Your task to perform on an android device: Open wifi settings Image 0: 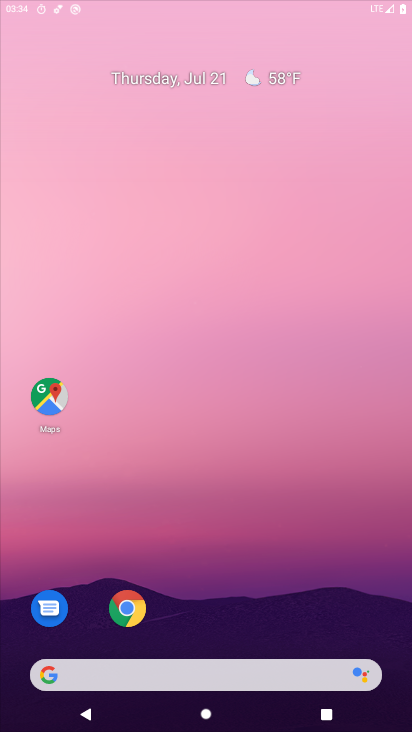
Step 0: press home button
Your task to perform on an android device: Open wifi settings Image 1: 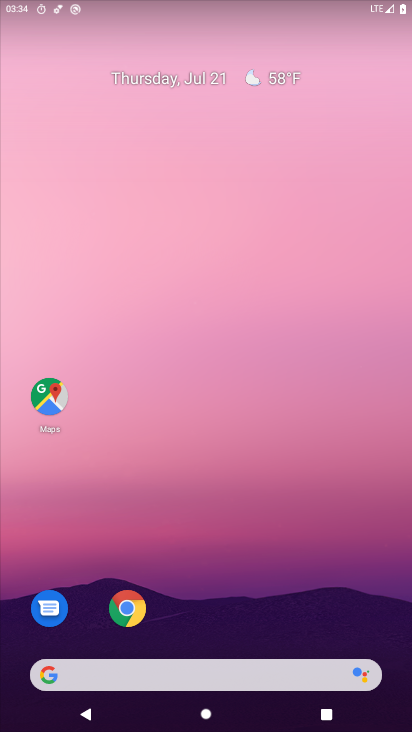
Step 1: drag from (224, 640) to (265, 67)
Your task to perform on an android device: Open wifi settings Image 2: 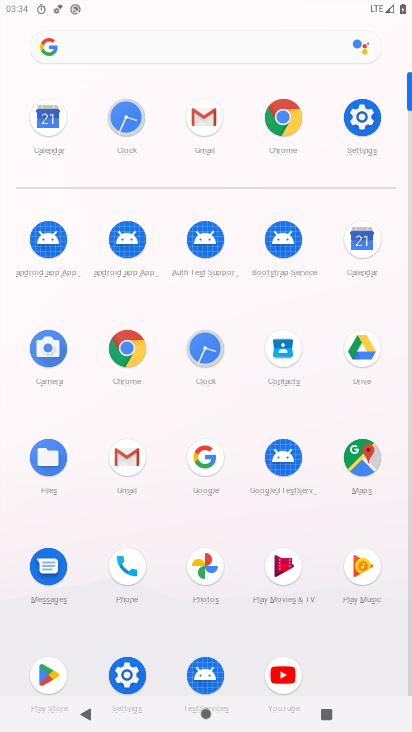
Step 2: click (359, 113)
Your task to perform on an android device: Open wifi settings Image 3: 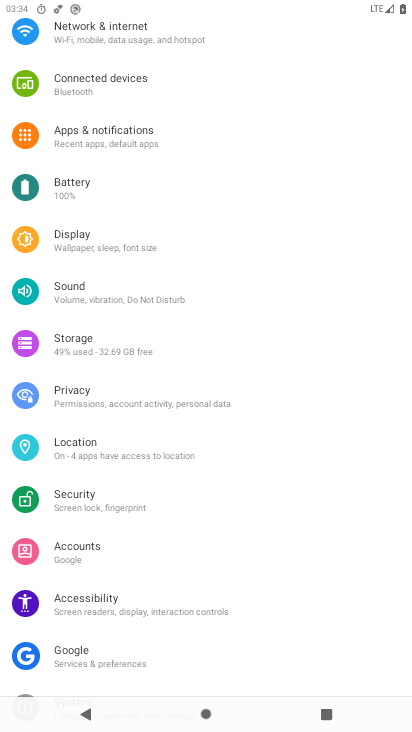
Step 3: click (145, 35)
Your task to perform on an android device: Open wifi settings Image 4: 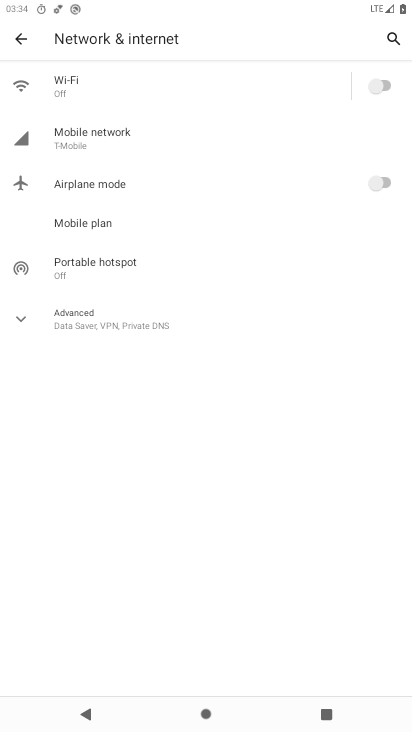
Step 4: click (148, 83)
Your task to perform on an android device: Open wifi settings Image 5: 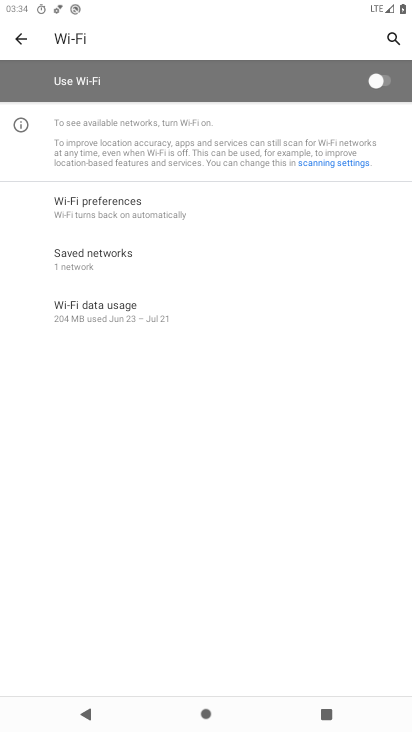
Step 5: click (376, 81)
Your task to perform on an android device: Open wifi settings Image 6: 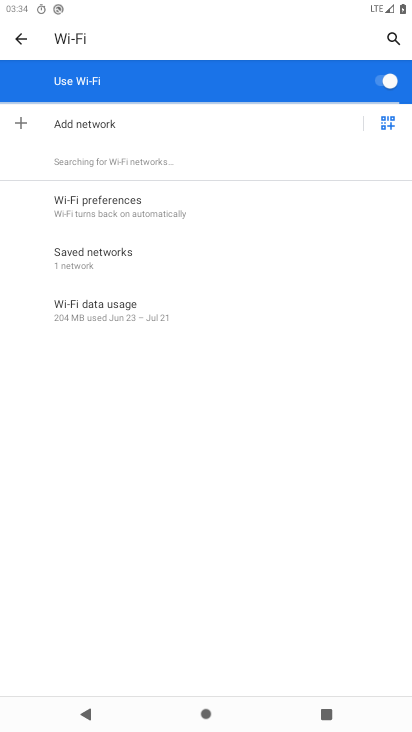
Step 6: task complete